Your task to perform on an android device: Open settings Image 0: 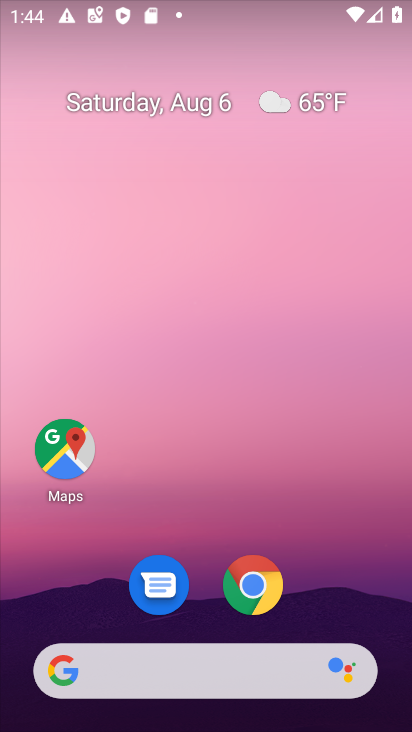
Step 0: drag from (205, 514) to (228, 0)
Your task to perform on an android device: Open settings Image 1: 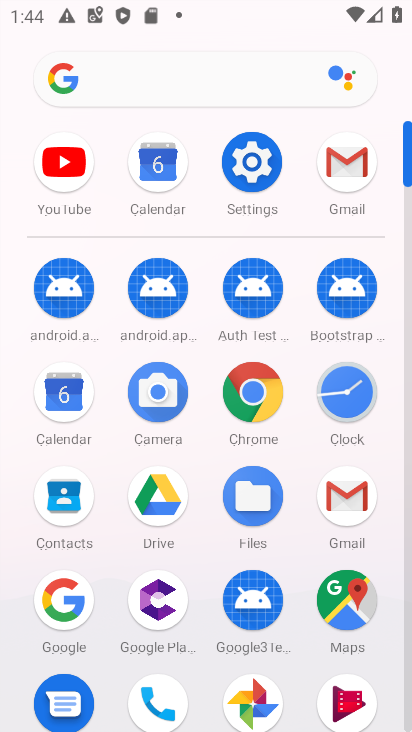
Step 1: click (250, 160)
Your task to perform on an android device: Open settings Image 2: 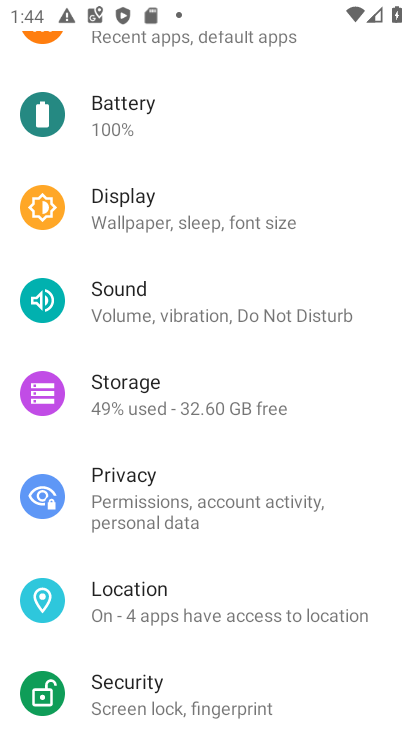
Step 2: task complete